Your task to perform on an android device: Check the news Image 0: 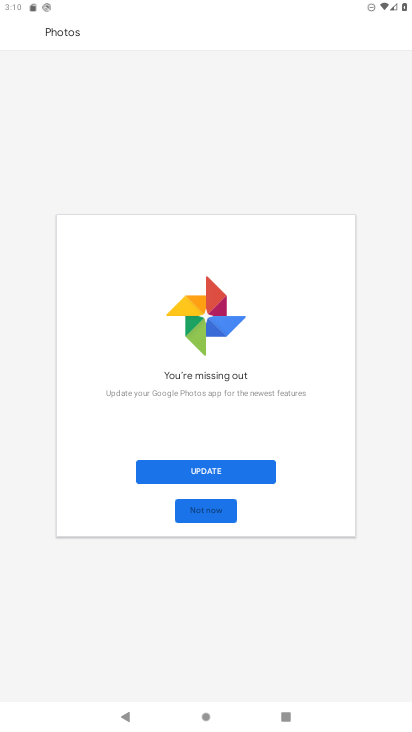
Step 0: press home button
Your task to perform on an android device: Check the news Image 1: 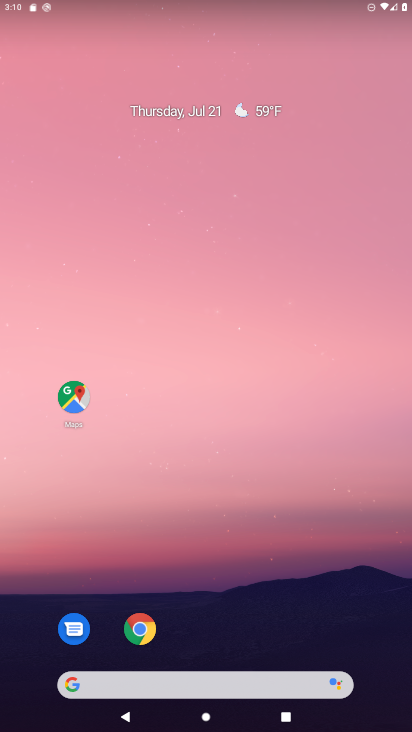
Step 1: task complete